Your task to perform on an android device: Go to location settings Image 0: 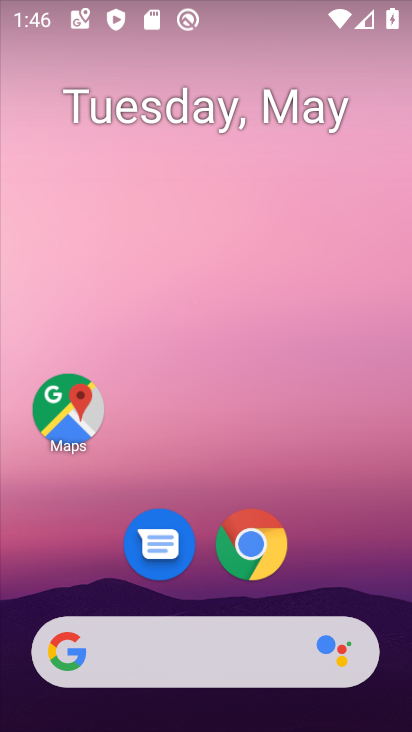
Step 0: drag from (358, 544) to (386, 66)
Your task to perform on an android device: Go to location settings Image 1: 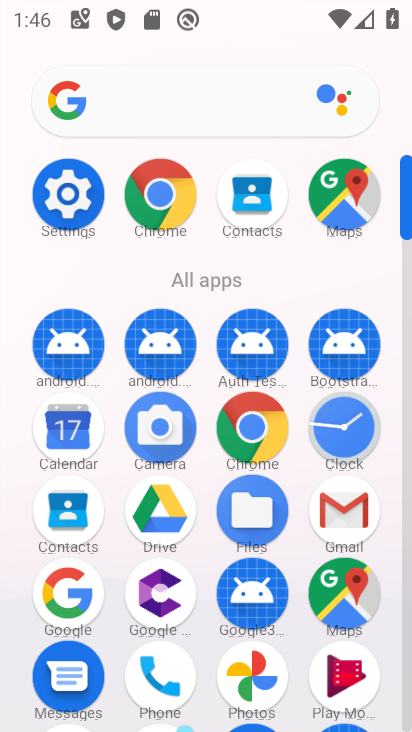
Step 1: click (72, 187)
Your task to perform on an android device: Go to location settings Image 2: 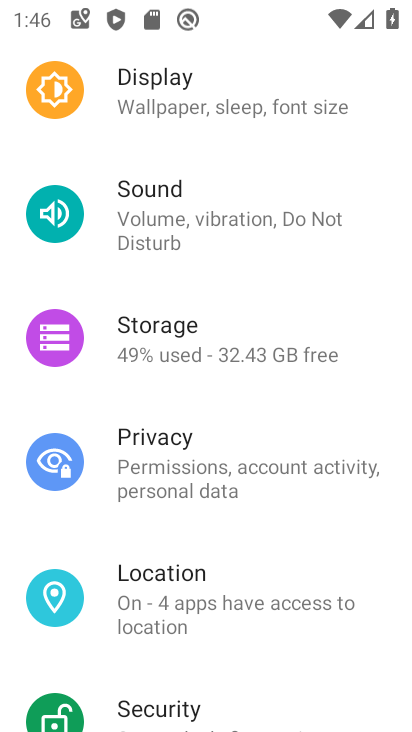
Step 2: click (274, 579)
Your task to perform on an android device: Go to location settings Image 3: 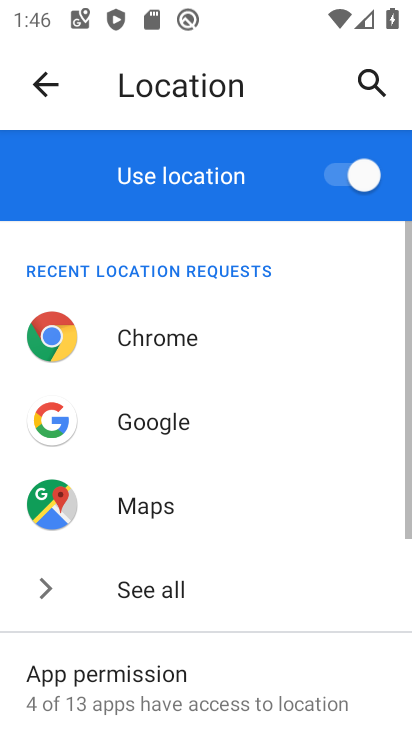
Step 3: task complete